Your task to perform on an android device: see tabs open on other devices in the chrome app Image 0: 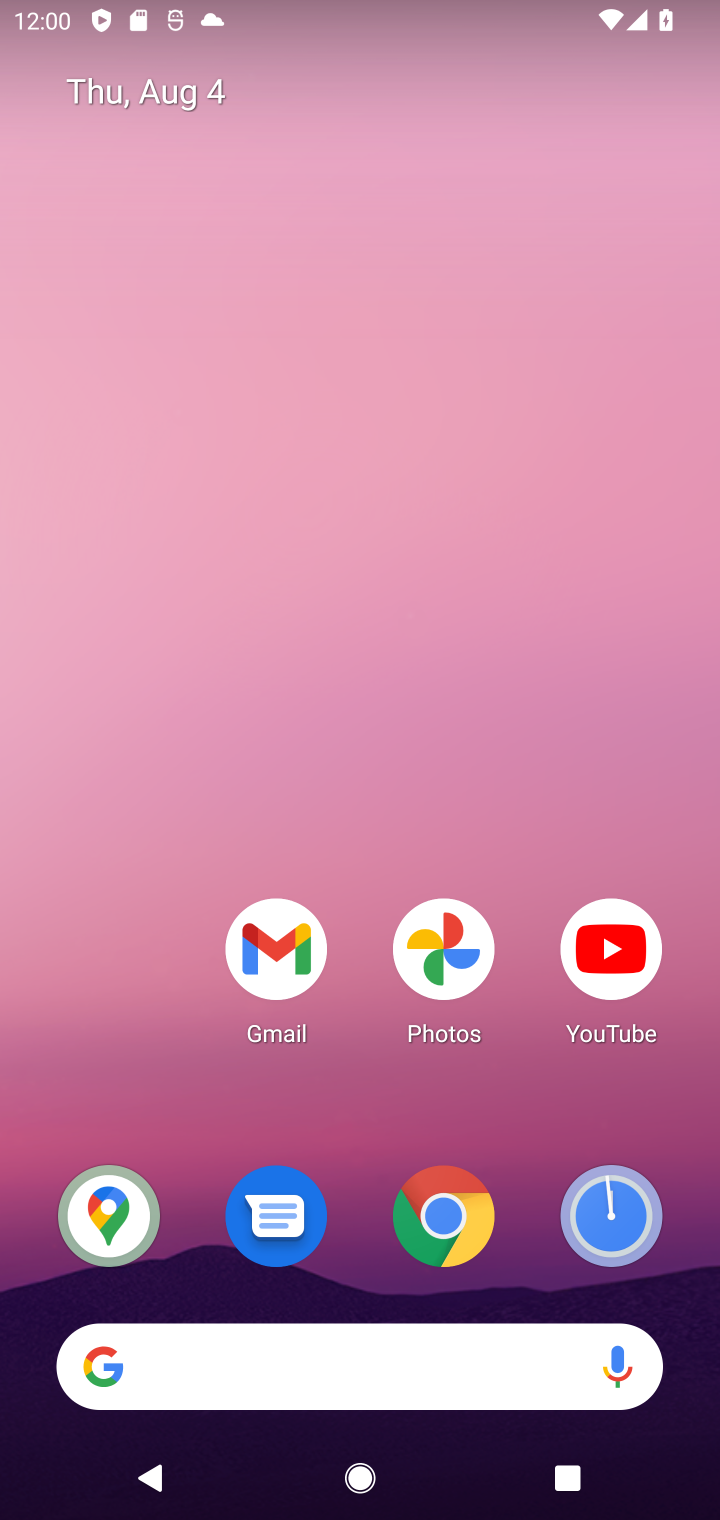
Step 0: click (438, 1219)
Your task to perform on an android device: see tabs open on other devices in the chrome app Image 1: 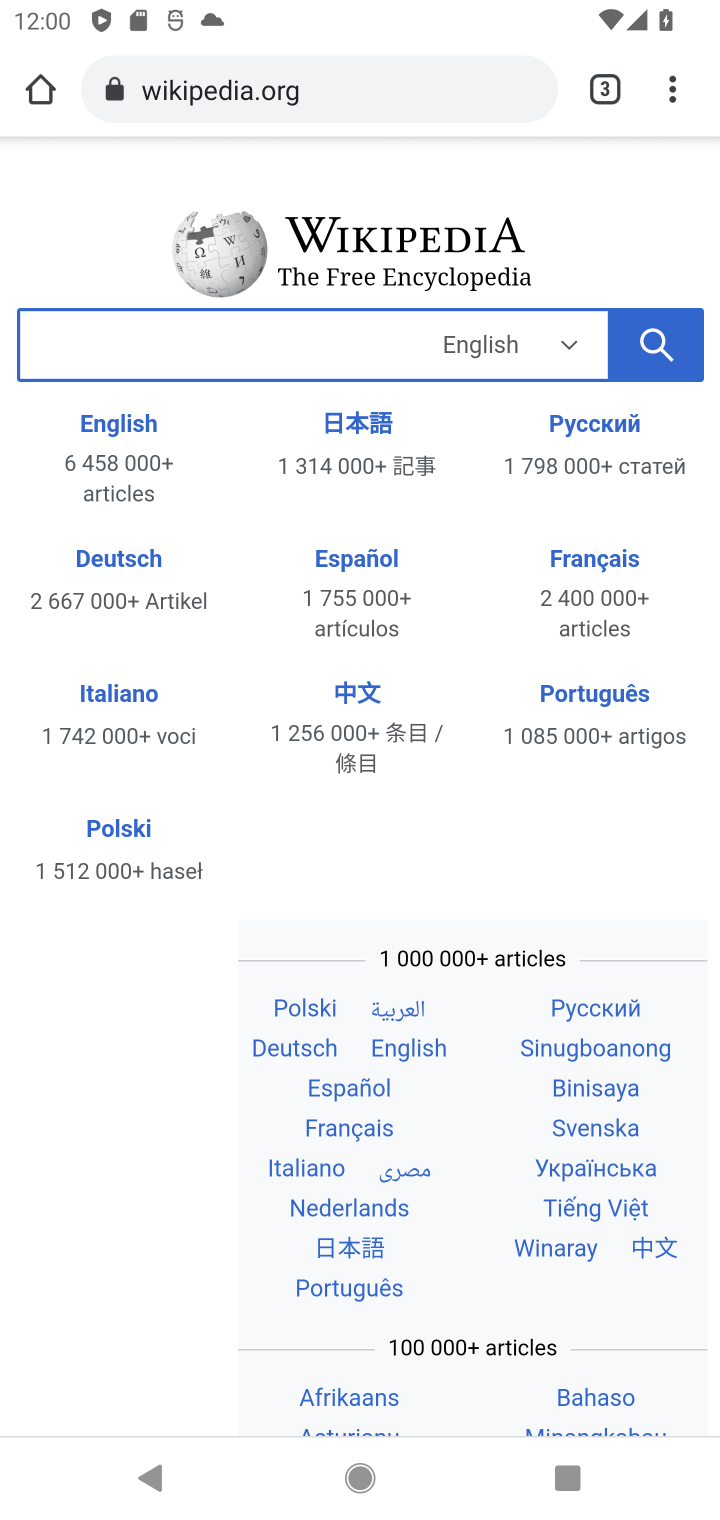
Step 1: task complete